Your task to perform on an android device: Open Yahoo.com Image 0: 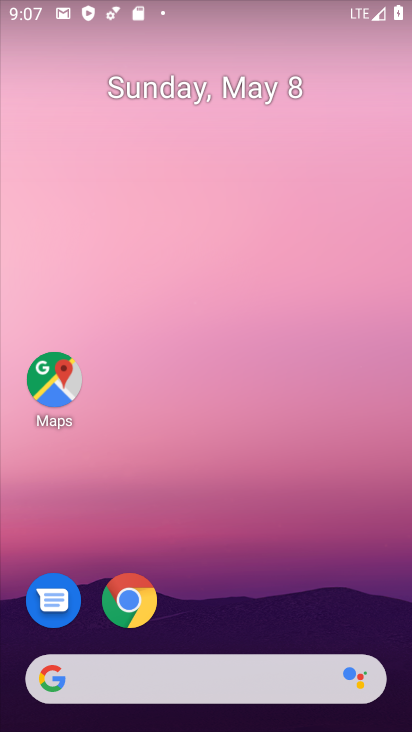
Step 0: click (135, 600)
Your task to perform on an android device: Open Yahoo.com Image 1: 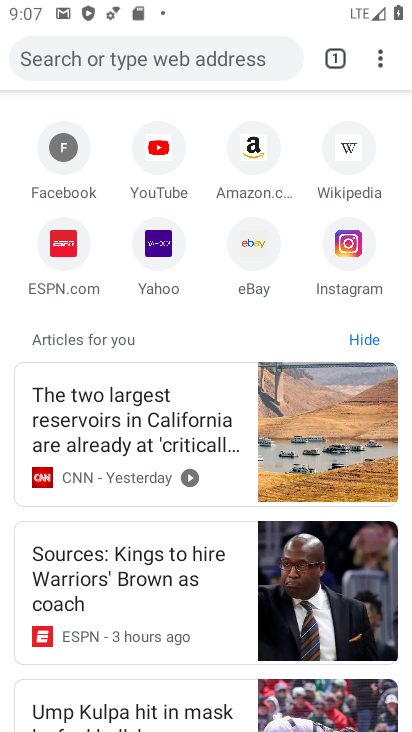
Step 1: click (145, 256)
Your task to perform on an android device: Open Yahoo.com Image 2: 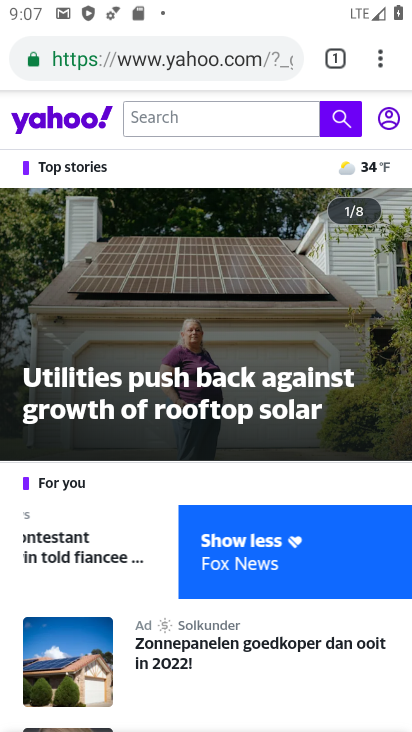
Step 2: task complete